Your task to perform on an android device: turn off improve location accuracy Image 0: 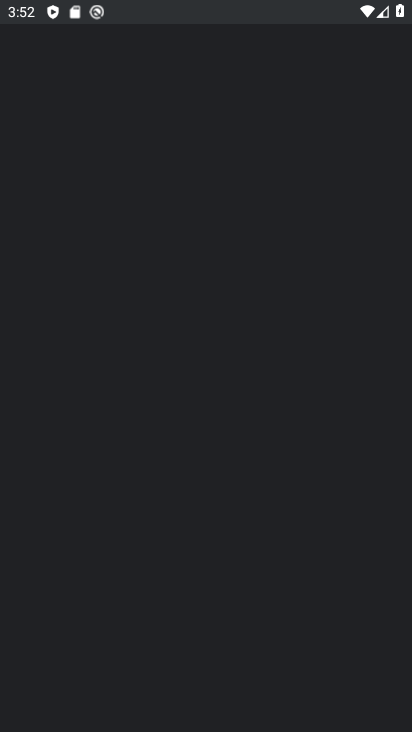
Step 0: drag from (259, 564) to (244, 140)
Your task to perform on an android device: turn off improve location accuracy Image 1: 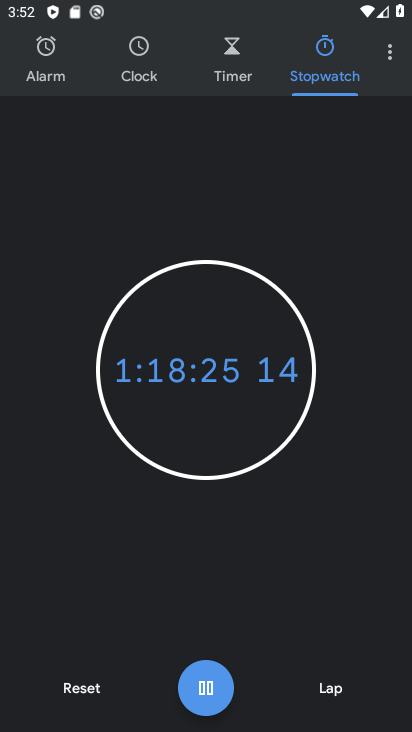
Step 1: press home button
Your task to perform on an android device: turn off improve location accuracy Image 2: 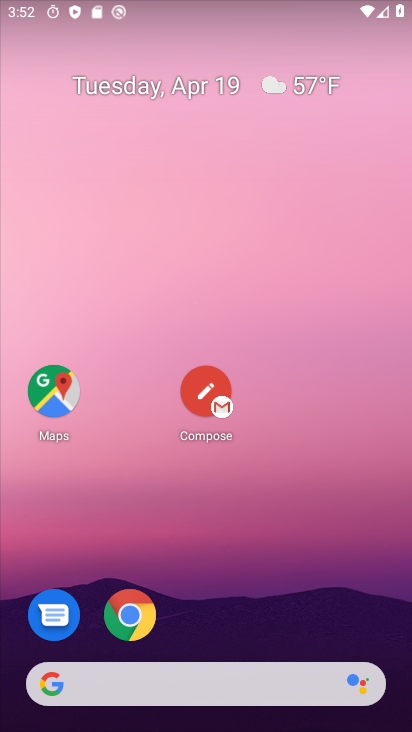
Step 2: drag from (321, 627) to (319, 97)
Your task to perform on an android device: turn off improve location accuracy Image 3: 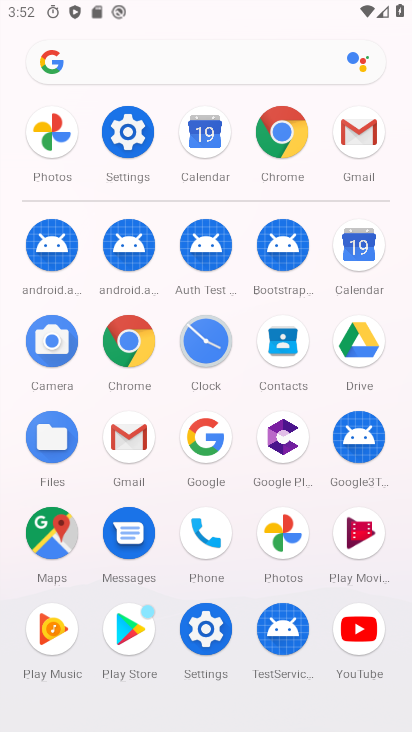
Step 3: click (200, 624)
Your task to perform on an android device: turn off improve location accuracy Image 4: 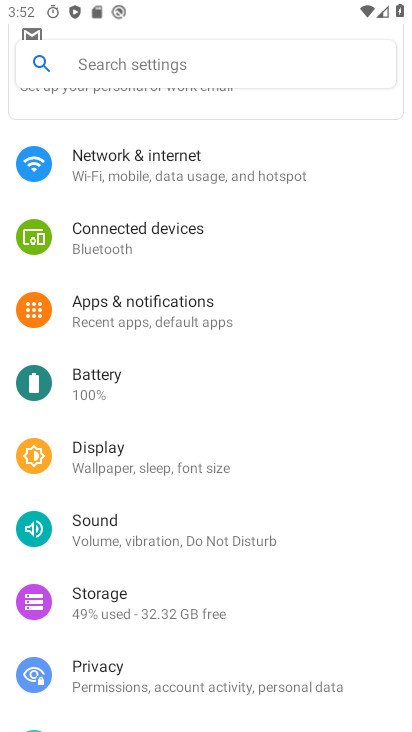
Step 4: drag from (243, 660) to (319, 98)
Your task to perform on an android device: turn off improve location accuracy Image 5: 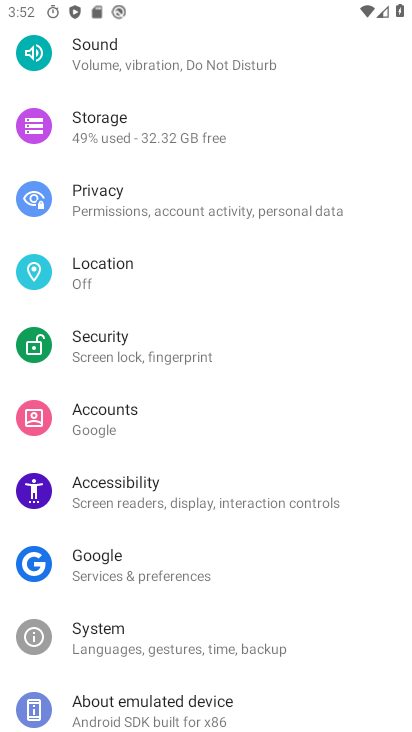
Step 5: drag from (226, 243) to (229, 568)
Your task to perform on an android device: turn off improve location accuracy Image 6: 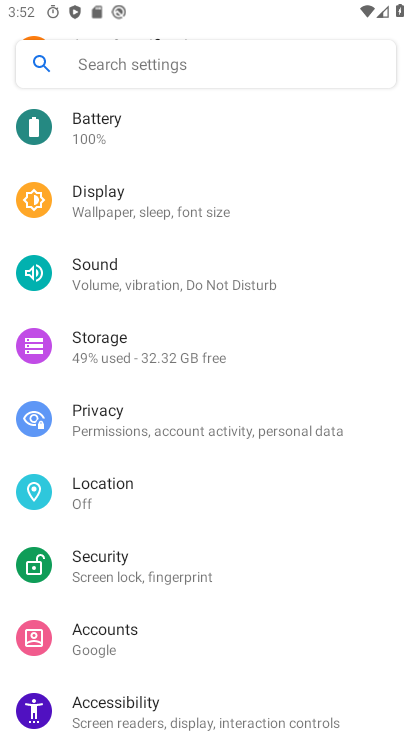
Step 6: click (143, 502)
Your task to perform on an android device: turn off improve location accuracy Image 7: 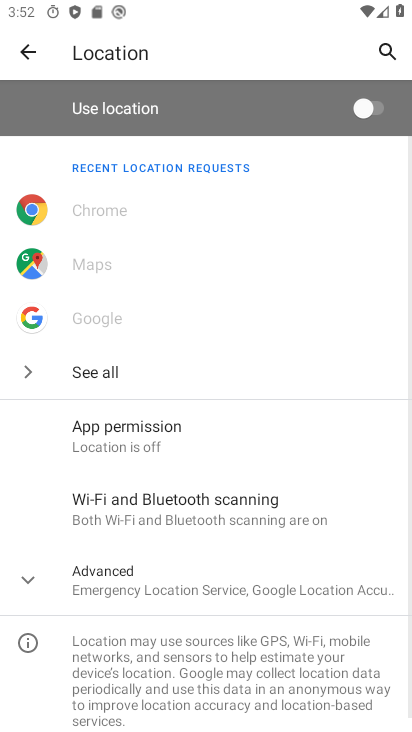
Step 7: drag from (214, 601) to (227, 124)
Your task to perform on an android device: turn off improve location accuracy Image 8: 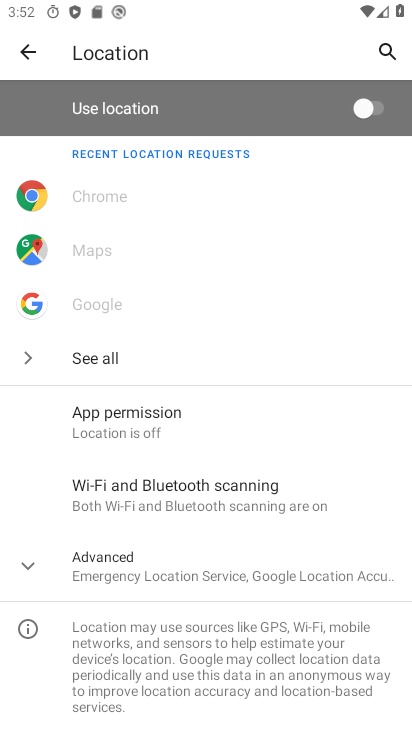
Step 8: click (219, 576)
Your task to perform on an android device: turn off improve location accuracy Image 9: 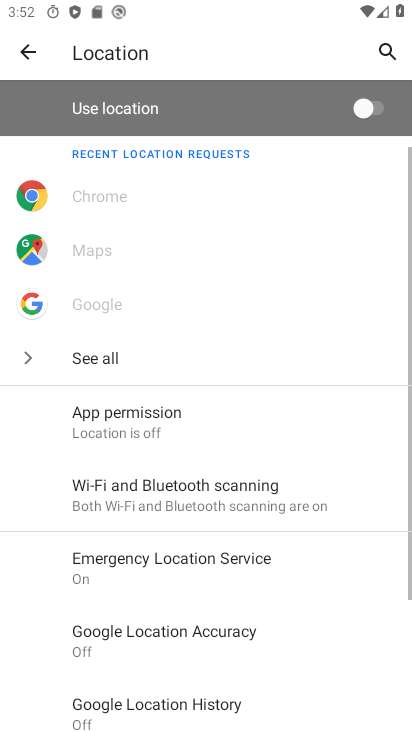
Step 9: drag from (248, 581) to (267, 262)
Your task to perform on an android device: turn off improve location accuracy Image 10: 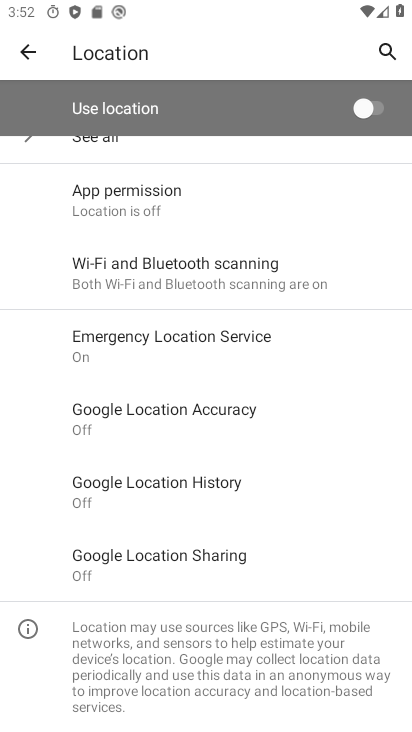
Step 10: click (176, 416)
Your task to perform on an android device: turn off improve location accuracy Image 11: 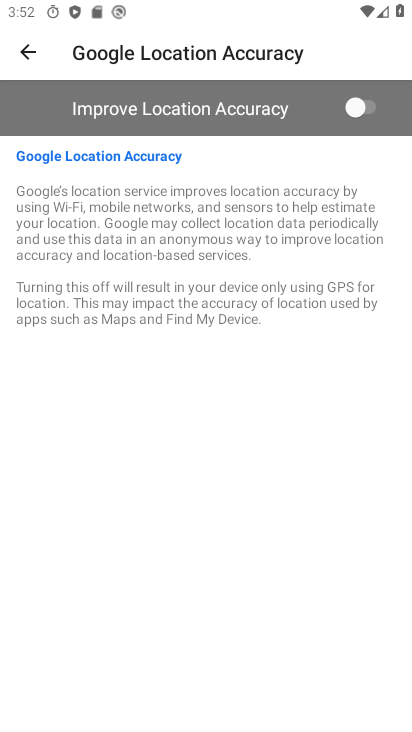
Step 11: task complete